Your task to perform on an android device: Go to Google Image 0: 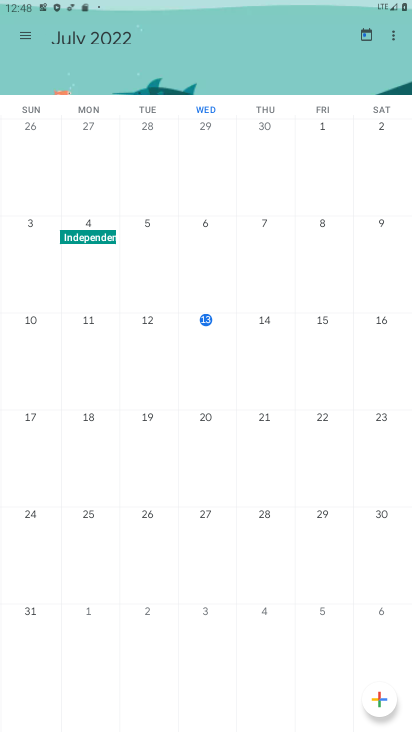
Step 0: press home button
Your task to perform on an android device: Go to Google Image 1: 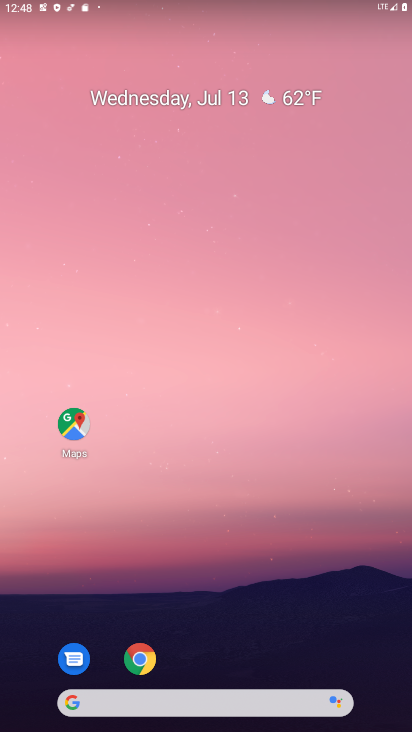
Step 1: drag from (200, 724) to (236, 103)
Your task to perform on an android device: Go to Google Image 2: 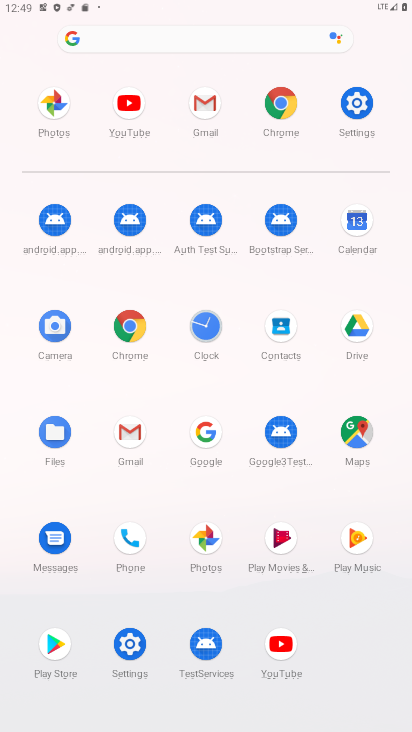
Step 2: click (205, 429)
Your task to perform on an android device: Go to Google Image 3: 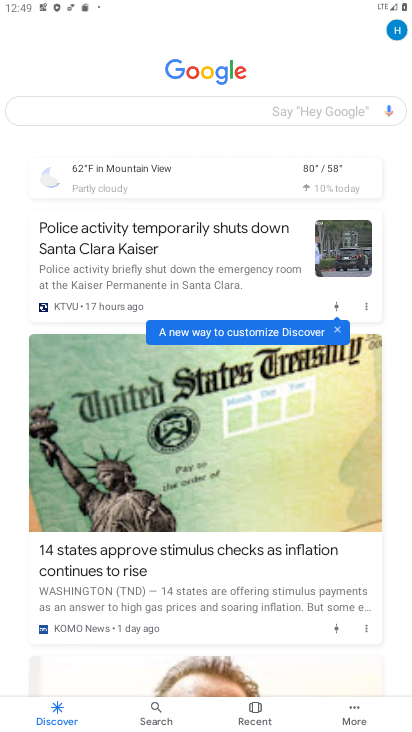
Step 3: task complete